Your task to perform on an android device: Add "usb-c to usb-b" to the cart on target.com, then select checkout. Image 0: 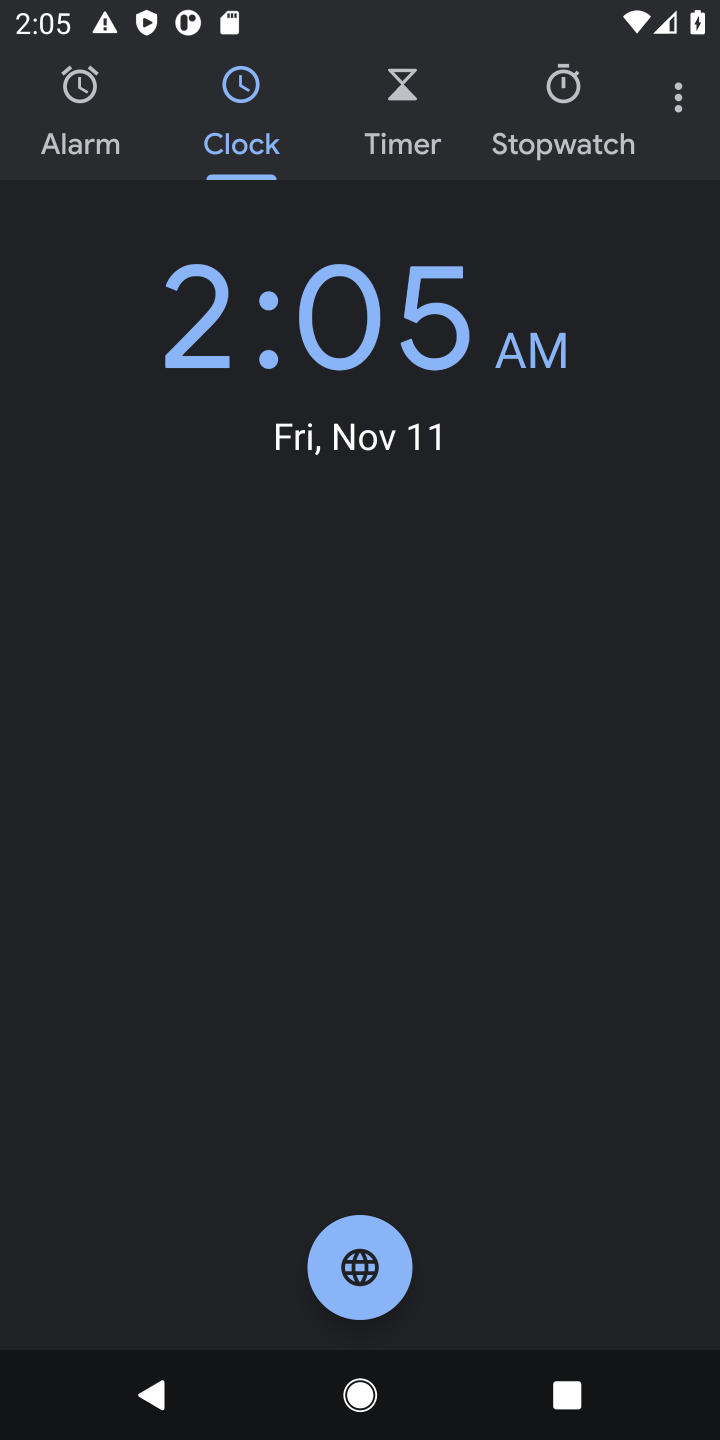
Step 0: press home button
Your task to perform on an android device: Add "usb-c to usb-b" to the cart on target.com, then select checkout. Image 1: 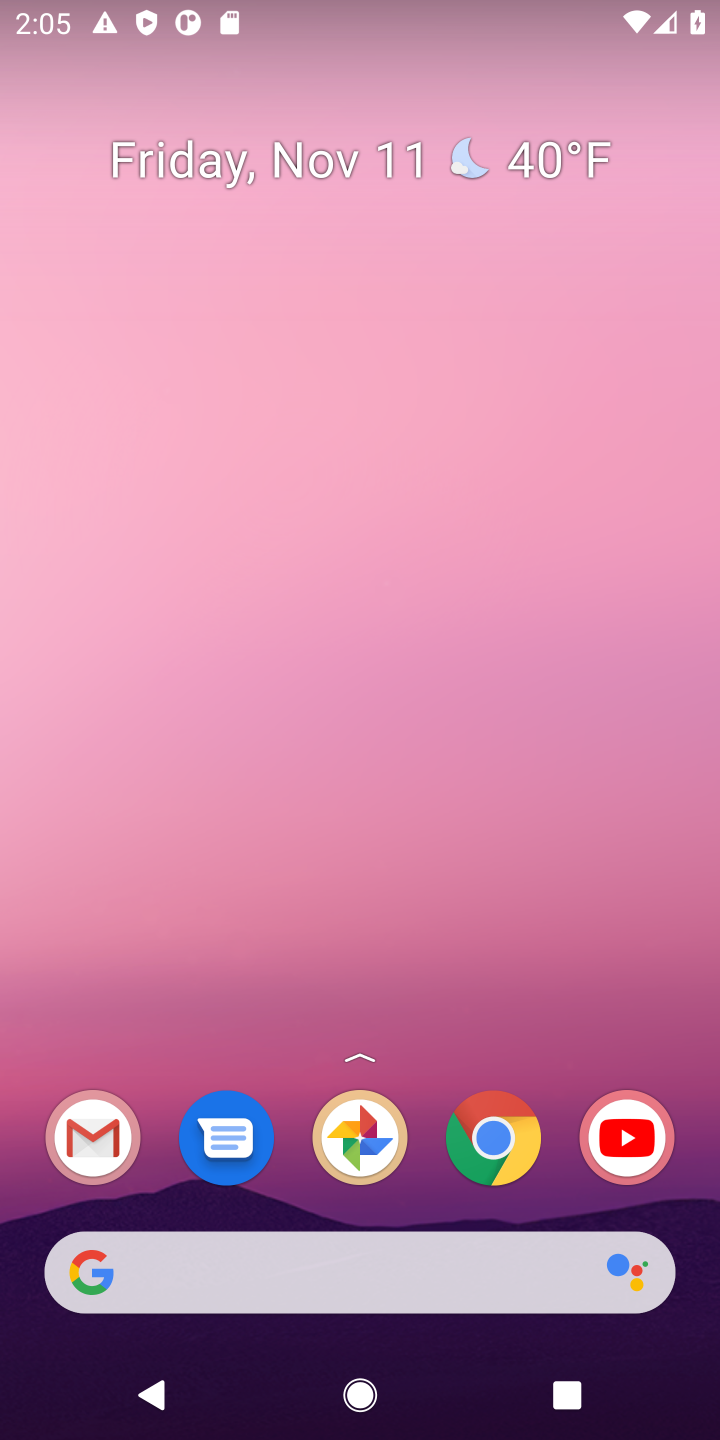
Step 1: click (507, 1148)
Your task to perform on an android device: Add "usb-c to usb-b" to the cart on target.com, then select checkout. Image 2: 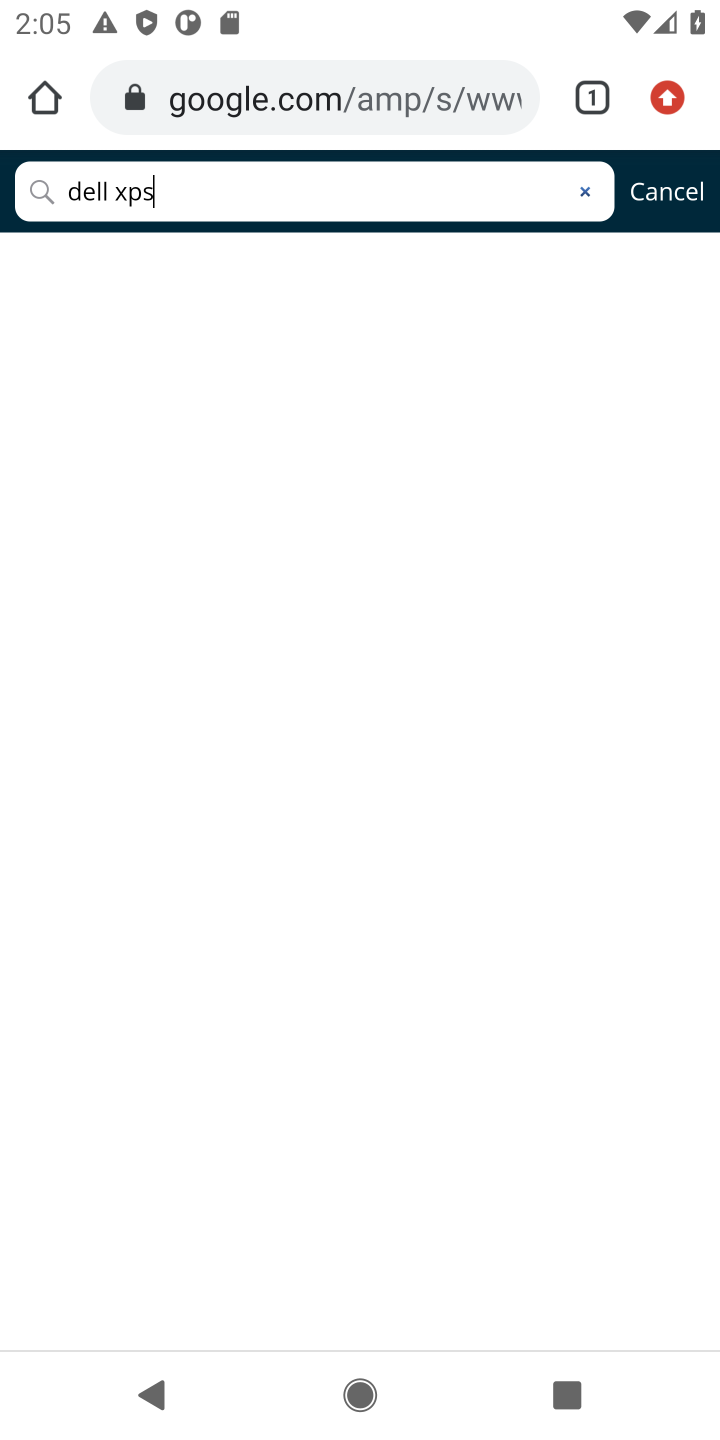
Step 2: click (294, 95)
Your task to perform on an android device: Add "usb-c to usb-b" to the cart on target.com, then select checkout. Image 3: 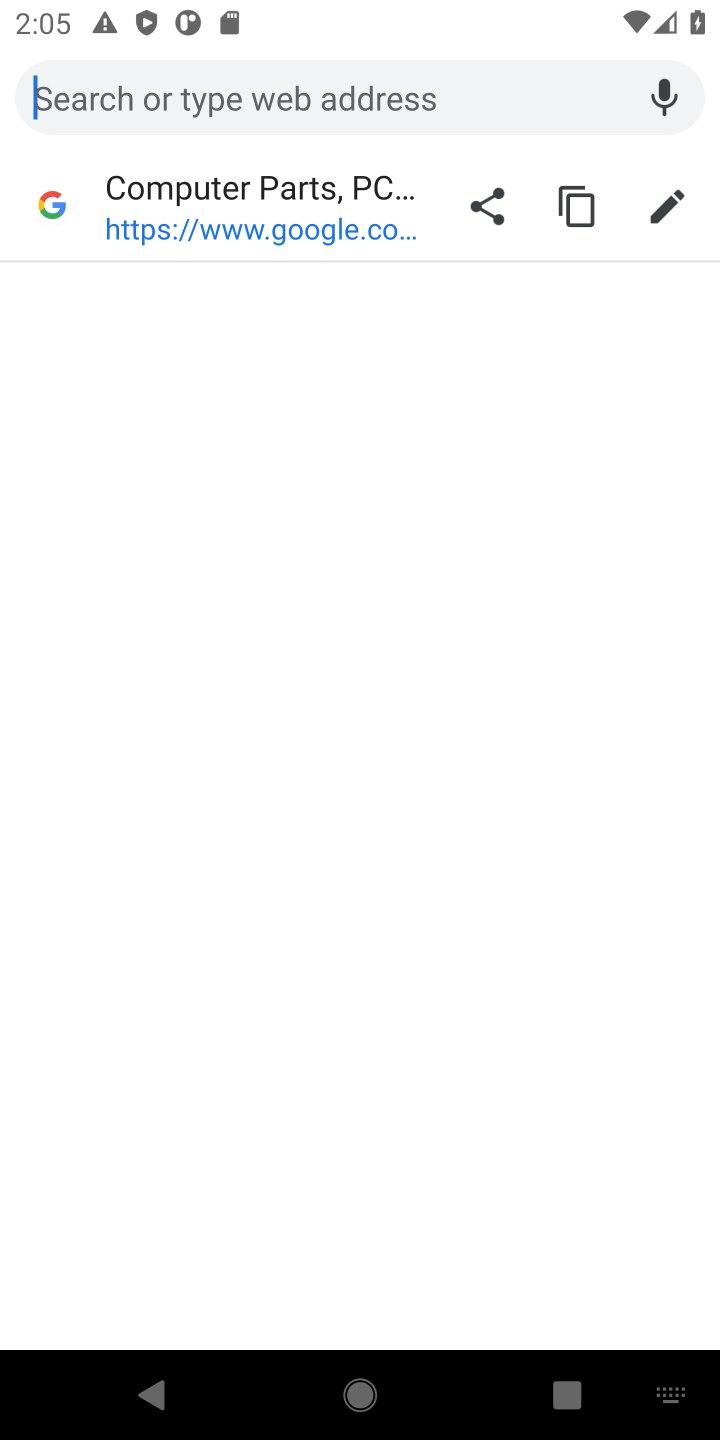
Step 3: type "target.com"
Your task to perform on an android device: Add "usb-c to usb-b" to the cart on target.com, then select checkout. Image 4: 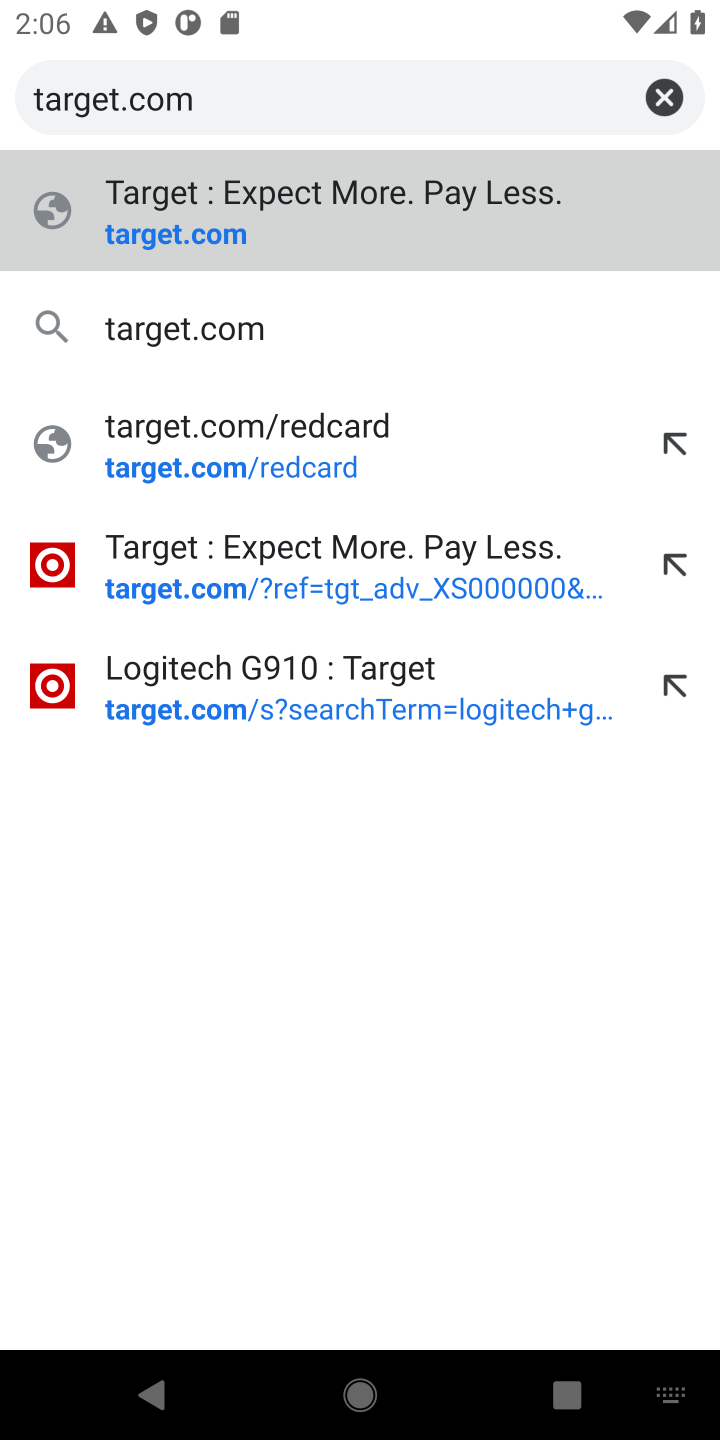
Step 4: press enter
Your task to perform on an android device: Add "usb-c to usb-b" to the cart on target.com, then select checkout. Image 5: 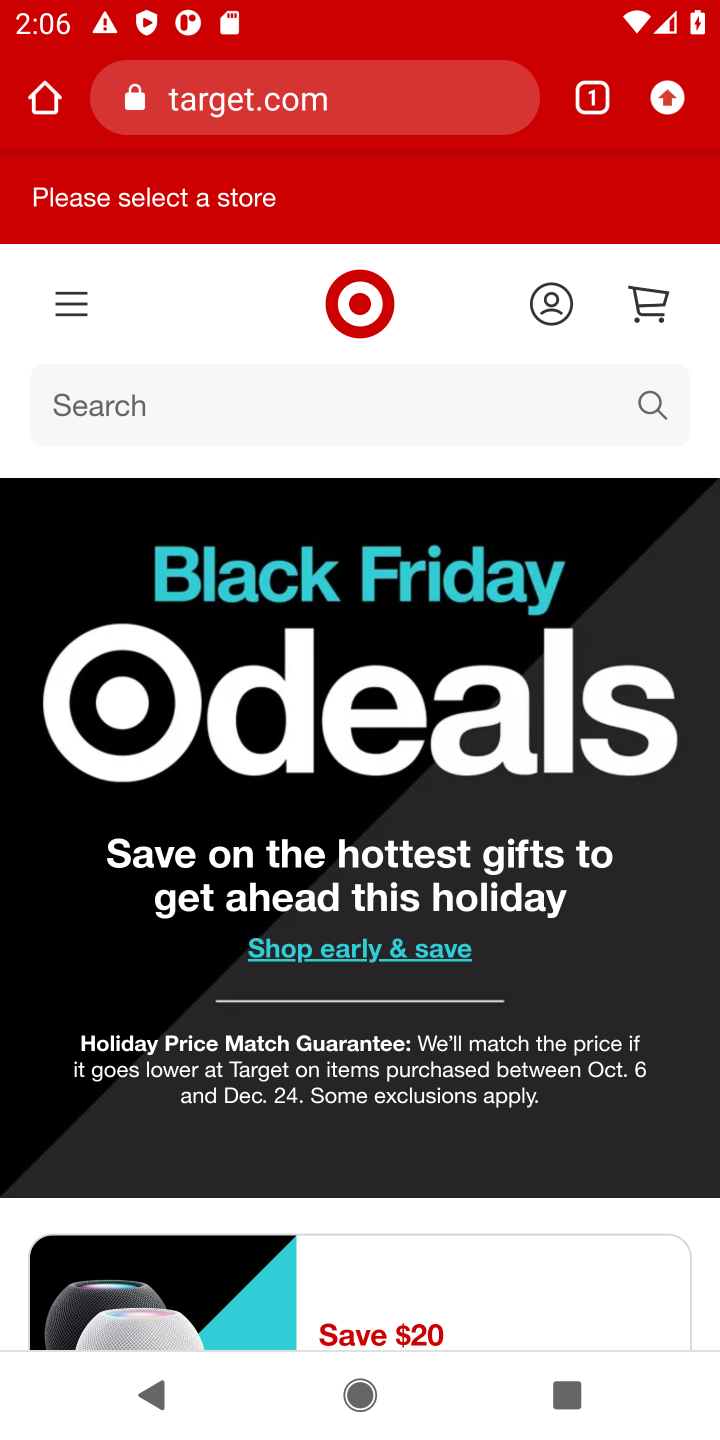
Step 5: click (643, 406)
Your task to perform on an android device: Add "usb-c to usb-b" to the cart on target.com, then select checkout. Image 6: 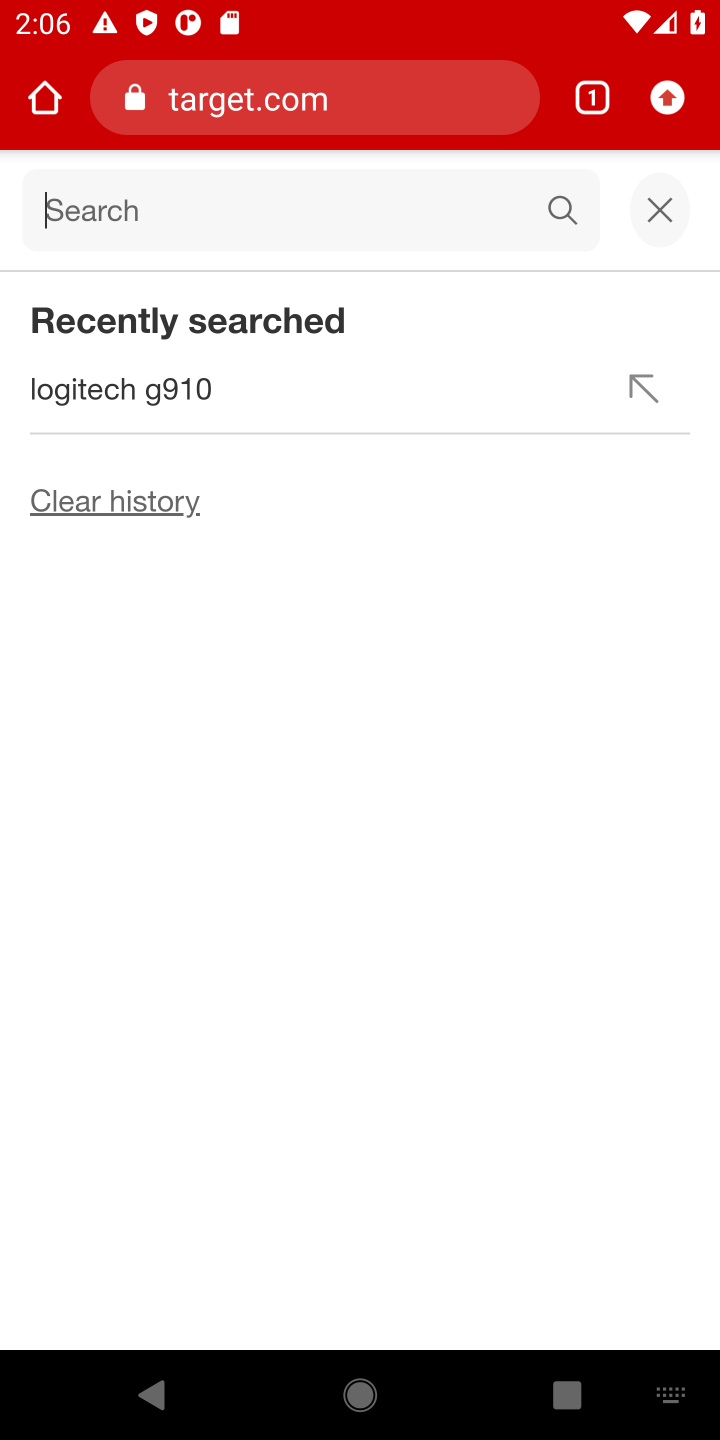
Step 6: type "usb-c to usb-b"
Your task to perform on an android device: Add "usb-c to usb-b" to the cart on target.com, then select checkout. Image 7: 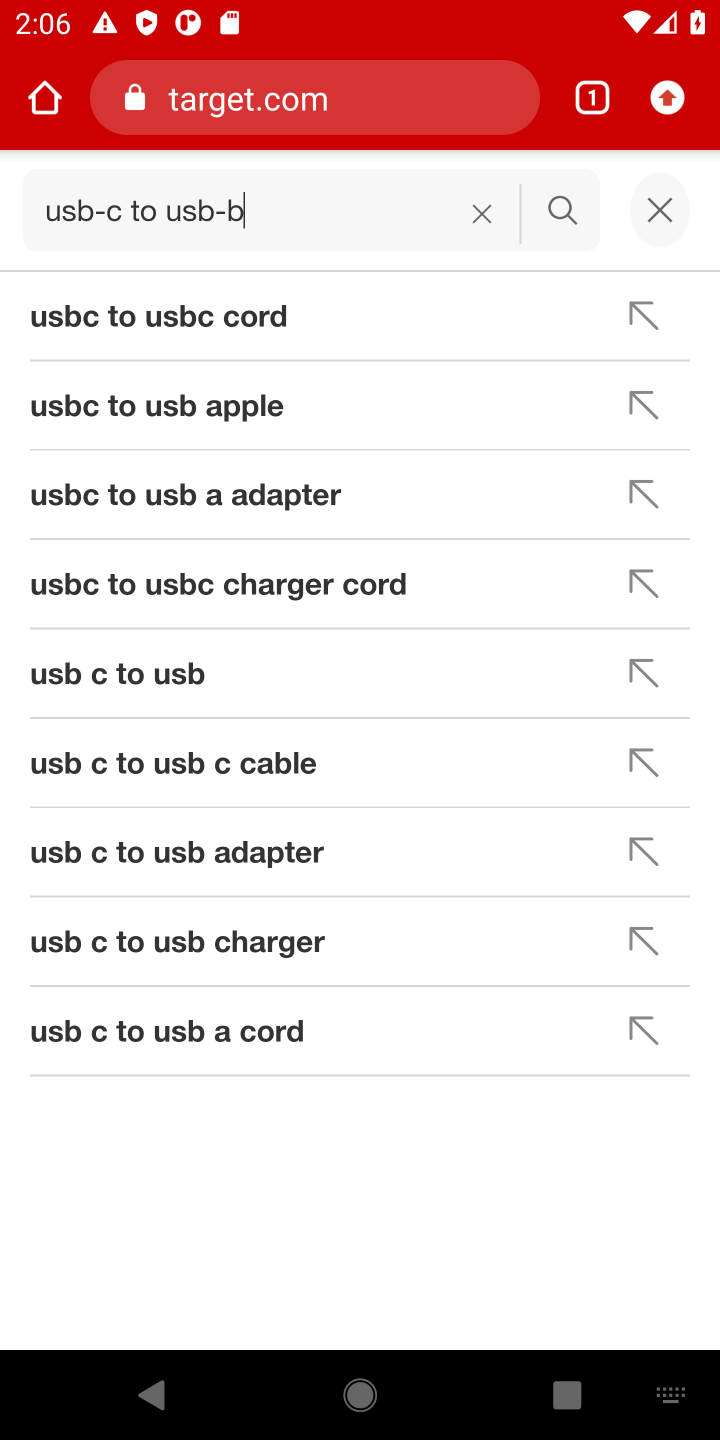
Step 7: click (563, 214)
Your task to perform on an android device: Add "usb-c to usb-b" to the cart on target.com, then select checkout. Image 8: 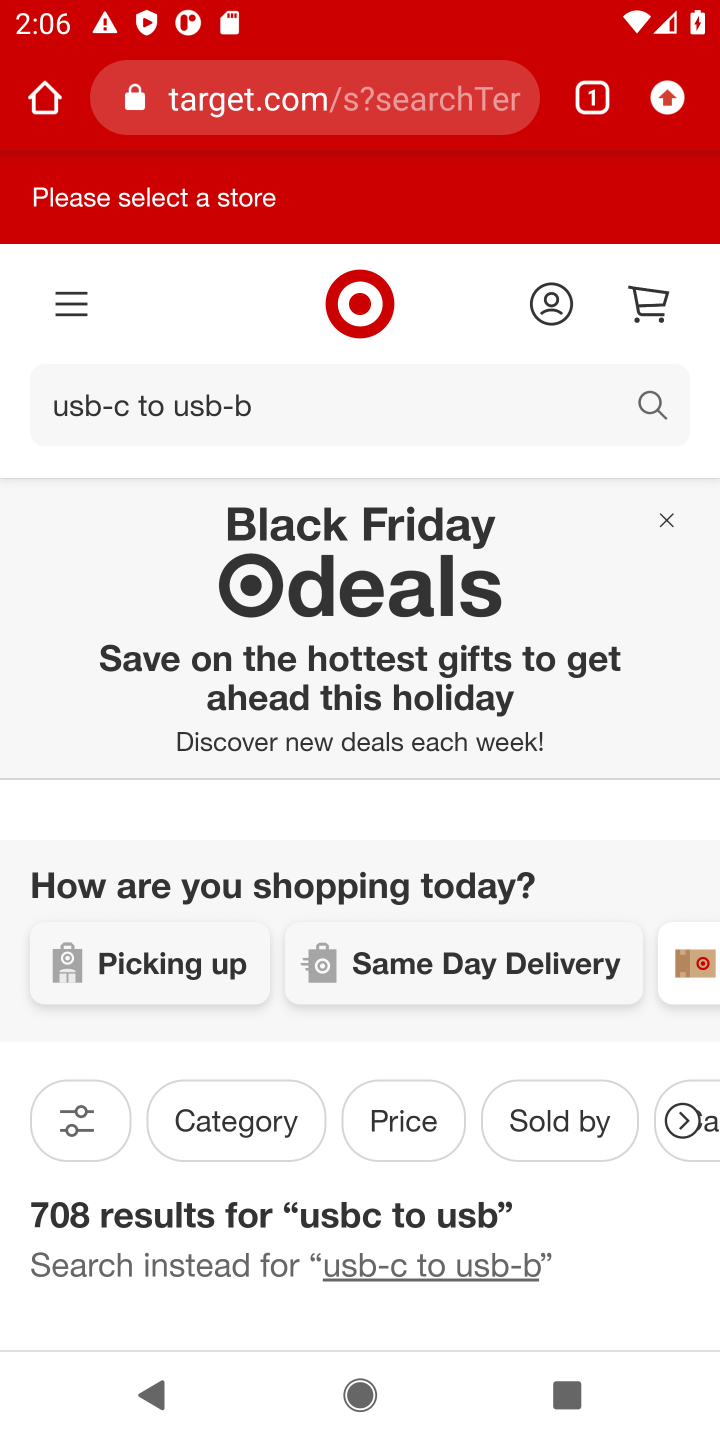
Step 8: task complete